Your task to perform on an android device: Go to Wikipedia Image 0: 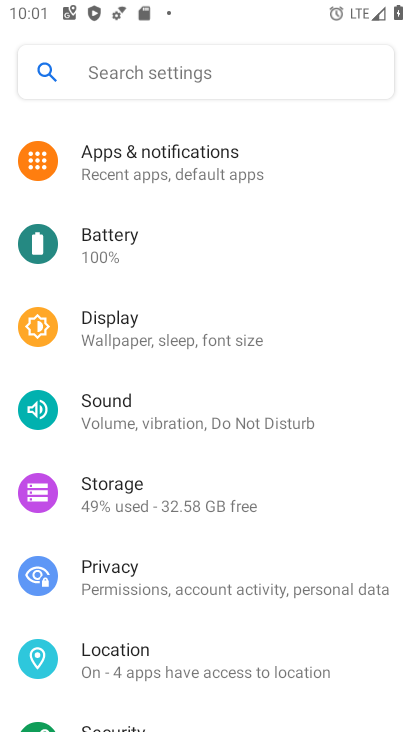
Step 0: press home button
Your task to perform on an android device: Go to Wikipedia Image 1: 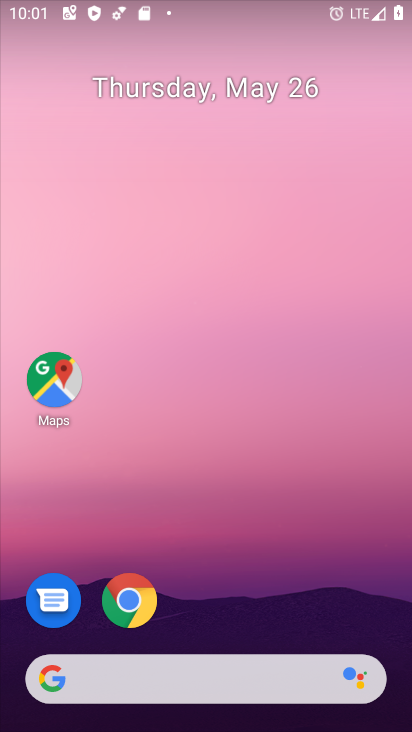
Step 1: click (137, 602)
Your task to perform on an android device: Go to Wikipedia Image 2: 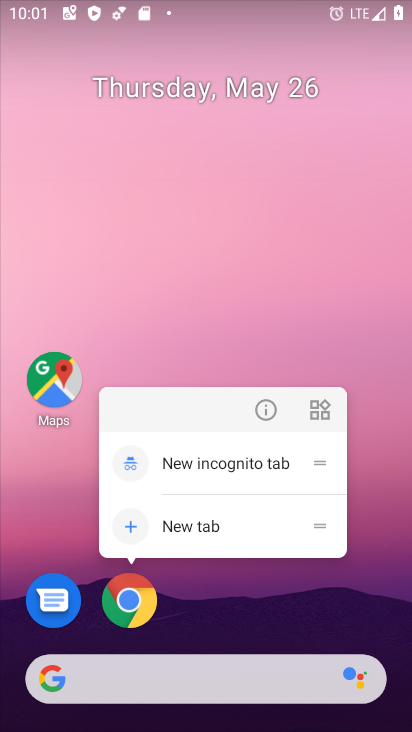
Step 2: click (128, 598)
Your task to perform on an android device: Go to Wikipedia Image 3: 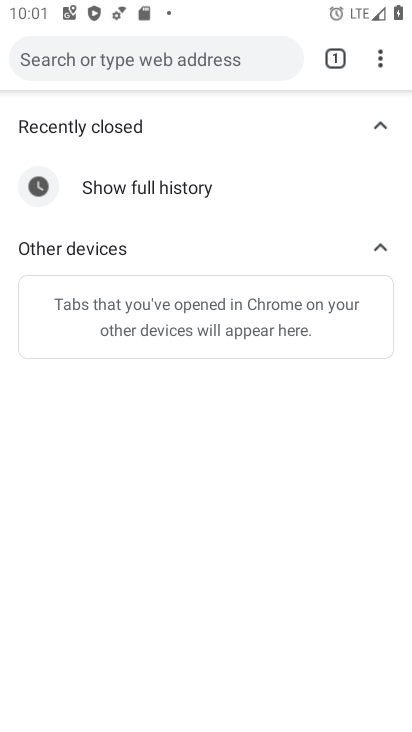
Step 3: click (239, 50)
Your task to perform on an android device: Go to Wikipedia Image 4: 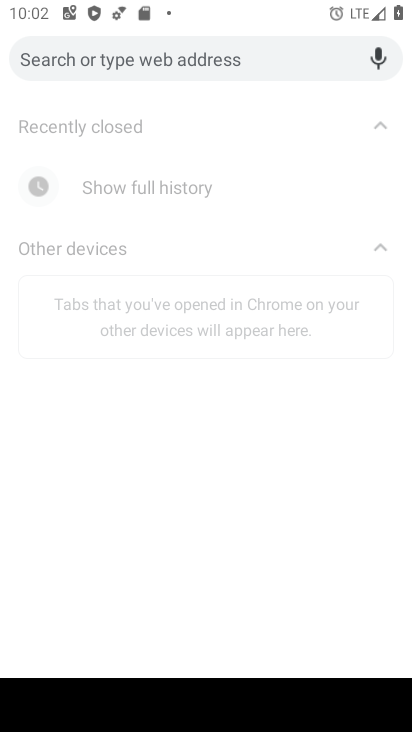
Step 4: type "wikipedia"
Your task to perform on an android device: Go to Wikipedia Image 5: 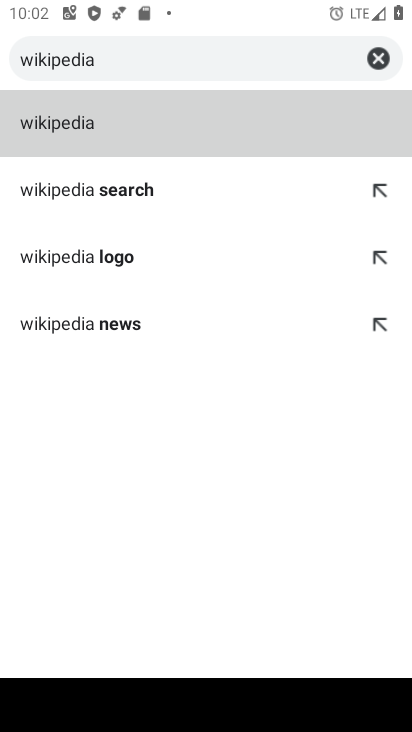
Step 5: click (49, 130)
Your task to perform on an android device: Go to Wikipedia Image 6: 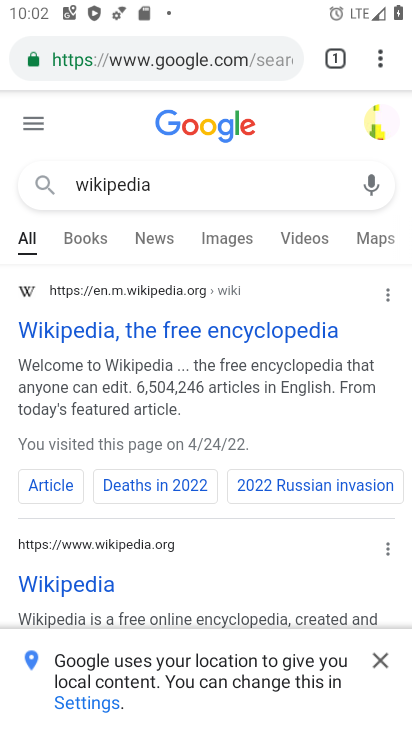
Step 6: click (174, 330)
Your task to perform on an android device: Go to Wikipedia Image 7: 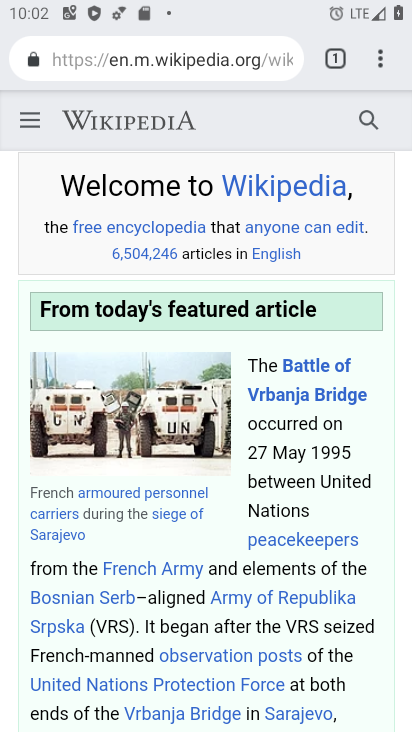
Step 7: task complete